Your task to perform on an android device: install app "Truecaller" Image 0: 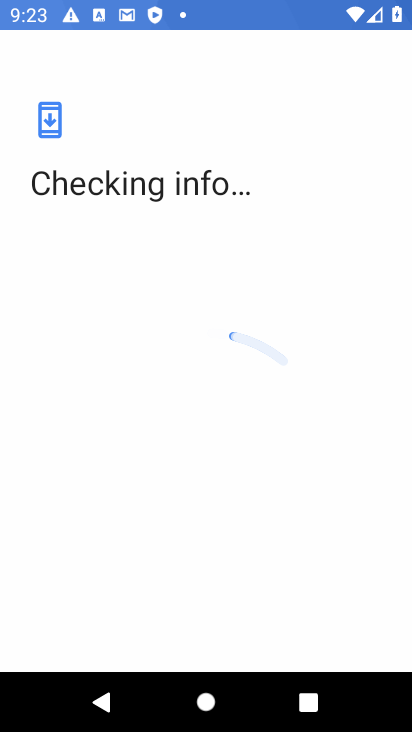
Step 0: press home button
Your task to perform on an android device: install app "Truecaller" Image 1: 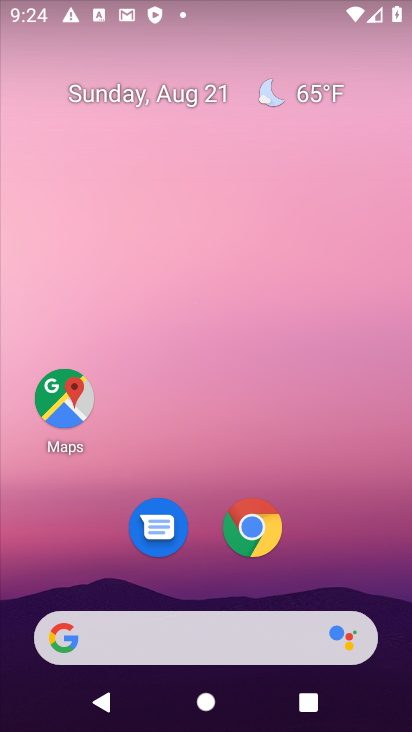
Step 1: drag from (206, 564) to (140, 4)
Your task to perform on an android device: install app "Truecaller" Image 2: 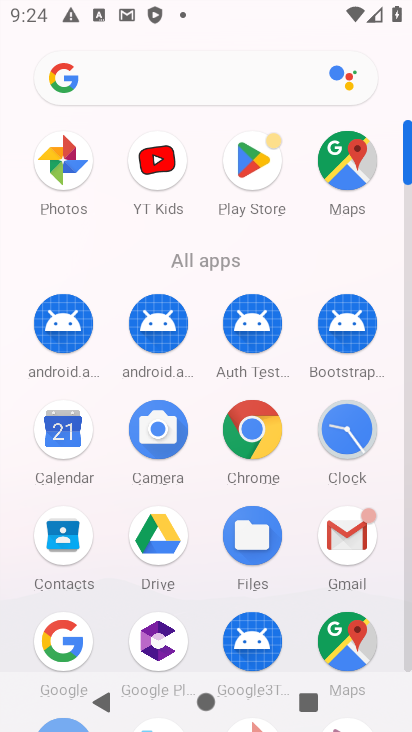
Step 2: click (255, 199)
Your task to perform on an android device: install app "Truecaller" Image 3: 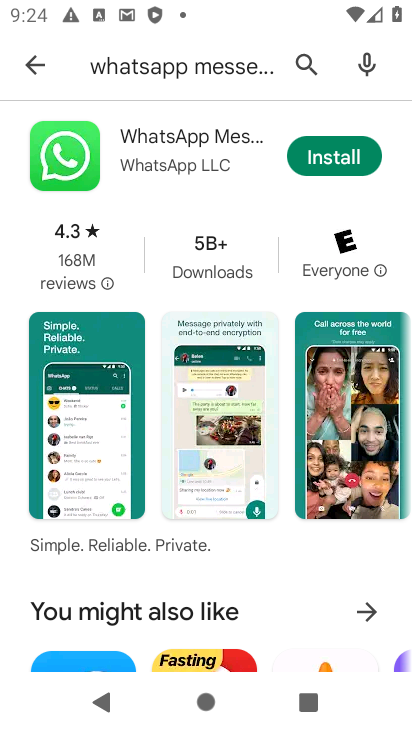
Step 3: click (193, 78)
Your task to perform on an android device: install app "Truecaller" Image 4: 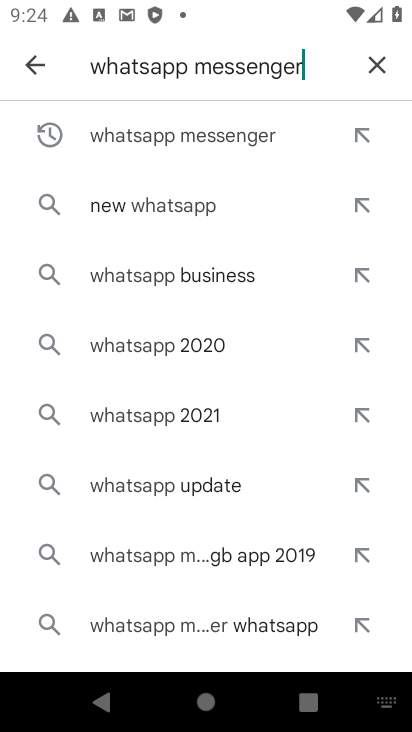
Step 4: click (376, 64)
Your task to perform on an android device: install app "Truecaller" Image 5: 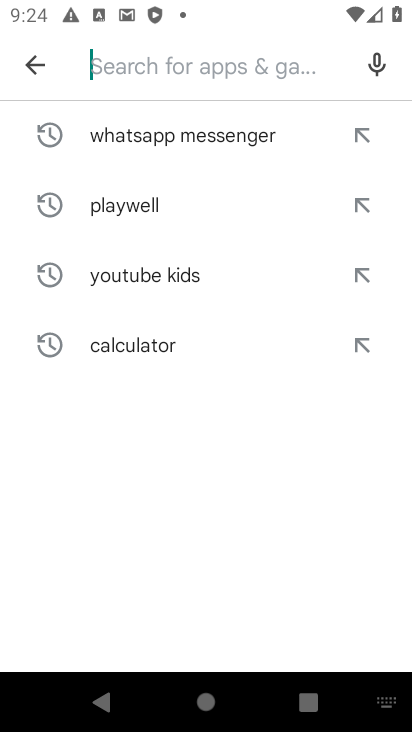
Step 5: type "truecaller"
Your task to perform on an android device: install app "Truecaller" Image 6: 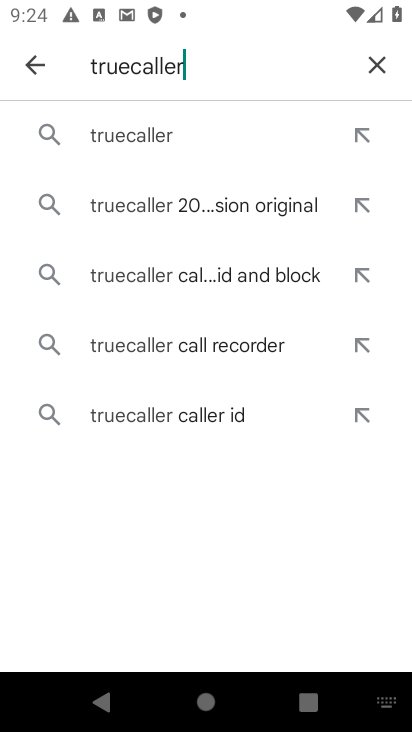
Step 6: click (184, 143)
Your task to perform on an android device: install app "Truecaller" Image 7: 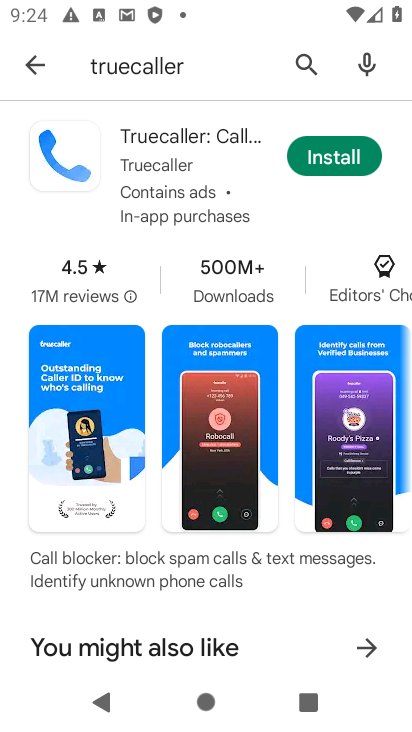
Step 7: click (340, 152)
Your task to perform on an android device: install app "Truecaller" Image 8: 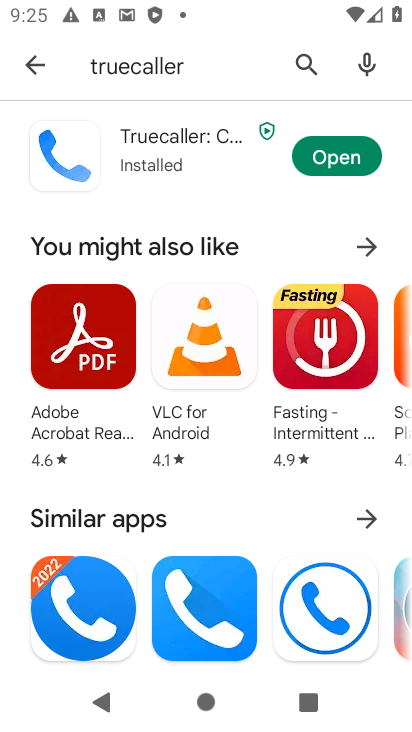
Step 8: task complete